Your task to perform on an android device: delete location history Image 0: 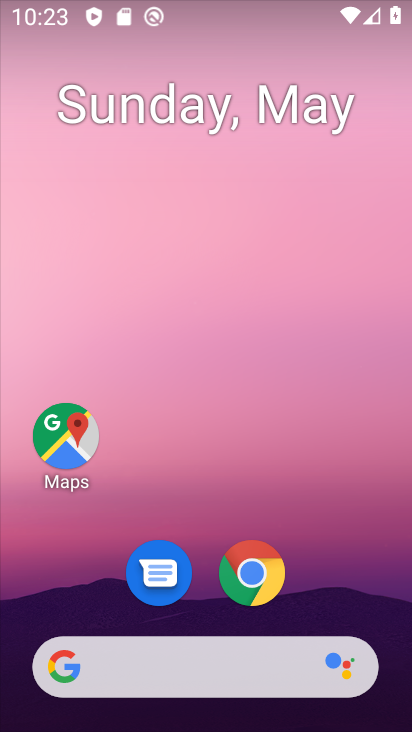
Step 0: drag from (349, 569) to (240, 161)
Your task to perform on an android device: delete location history Image 1: 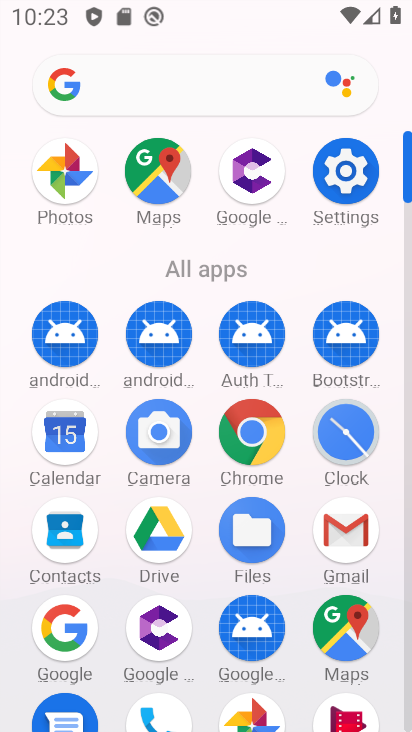
Step 1: click (165, 191)
Your task to perform on an android device: delete location history Image 2: 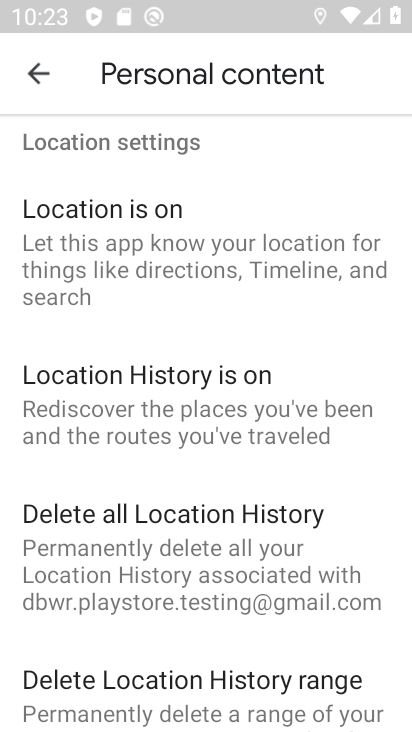
Step 2: click (303, 539)
Your task to perform on an android device: delete location history Image 3: 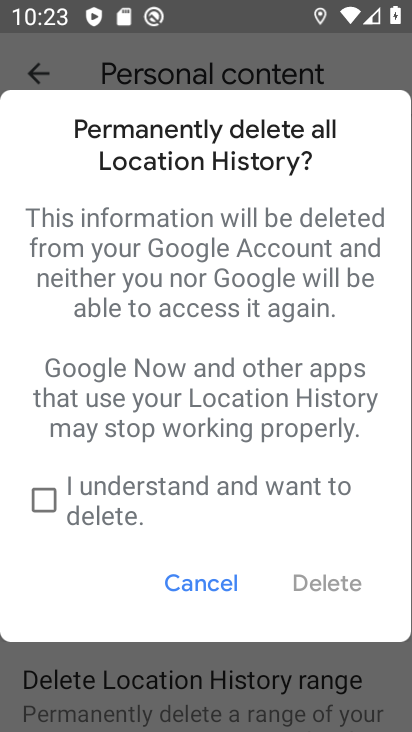
Step 3: click (239, 489)
Your task to perform on an android device: delete location history Image 4: 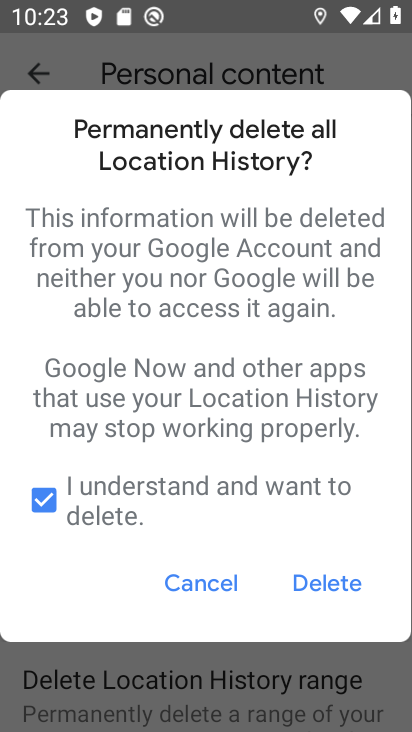
Step 4: click (353, 606)
Your task to perform on an android device: delete location history Image 5: 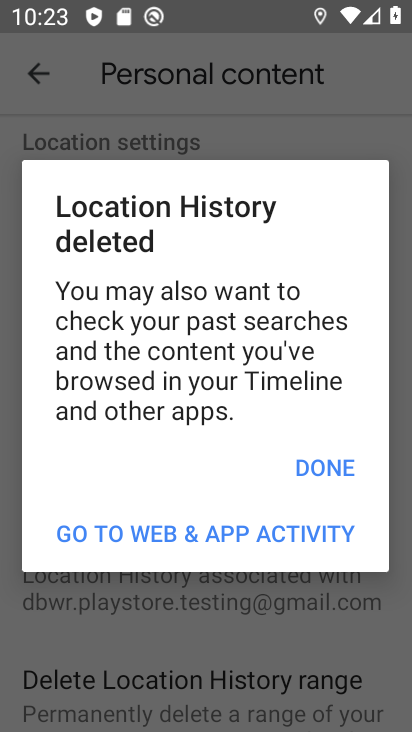
Step 5: click (319, 479)
Your task to perform on an android device: delete location history Image 6: 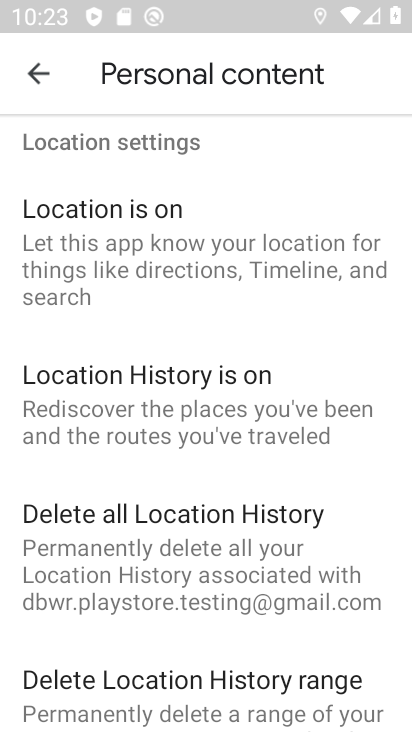
Step 6: task complete